Your task to perform on an android device: open wifi settings Image 0: 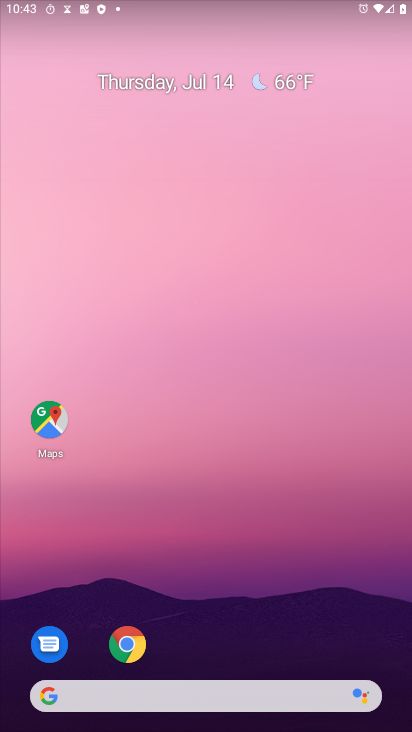
Step 0: drag from (229, 702) to (159, 141)
Your task to perform on an android device: open wifi settings Image 1: 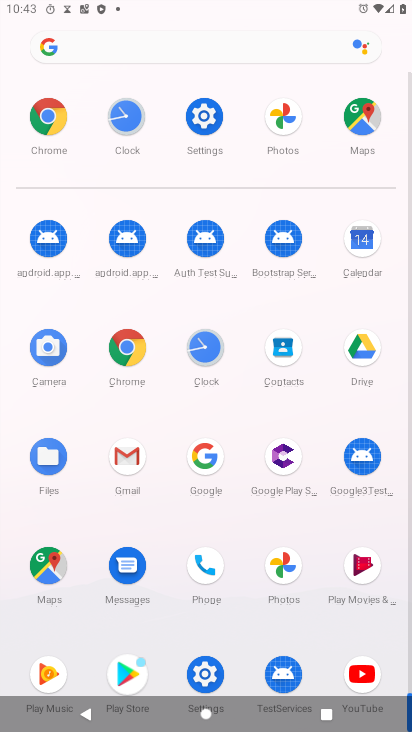
Step 1: click (198, 124)
Your task to perform on an android device: open wifi settings Image 2: 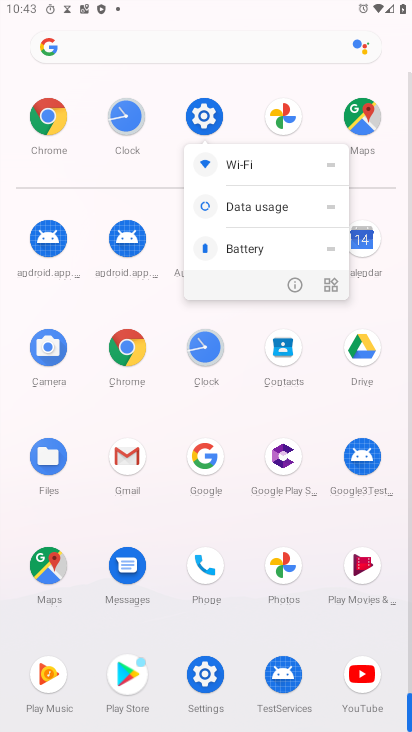
Step 2: click (198, 124)
Your task to perform on an android device: open wifi settings Image 3: 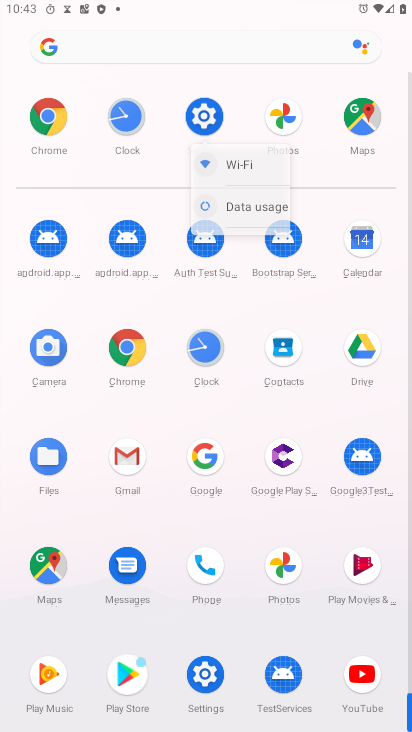
Step 3: click (198, 124)
Your task to perform on an android device: open wifi settings Image 4: 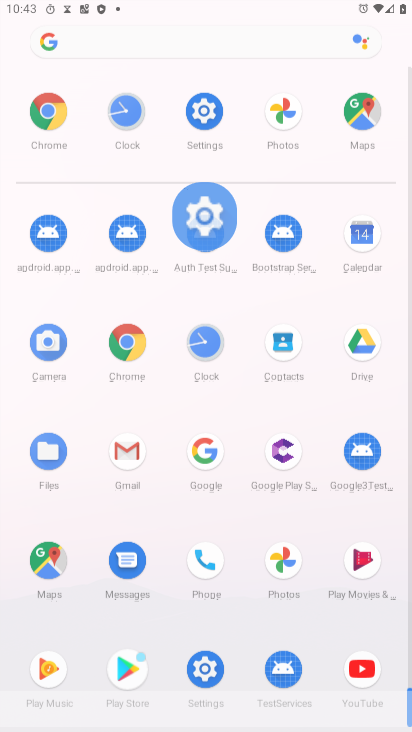
Step 4: click (198, 126)
Your task to perform on an android device: open wifi settings Image 5: 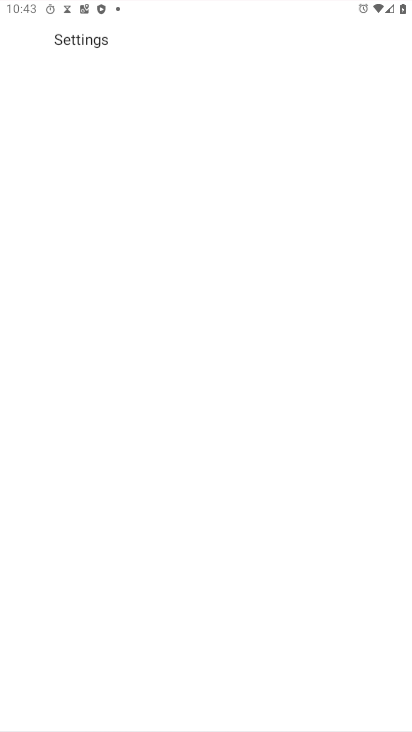
Step 5: click (198, 126)
Your task to perform on an android device: open wifi settings Image 6: 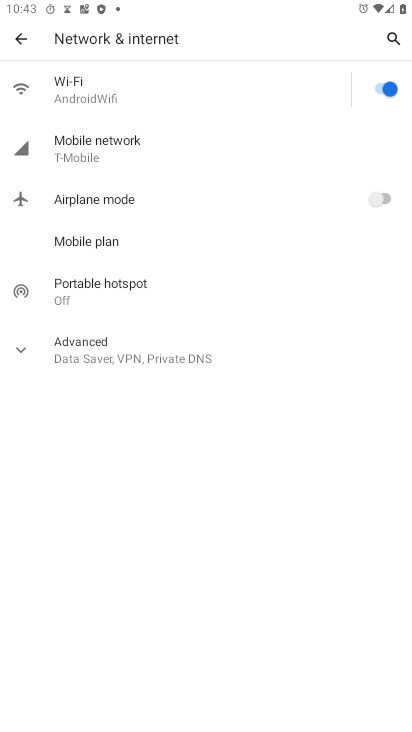
Step 6: click (85, 88)
Your task to perform on an android device: open wifi settings Image 7: 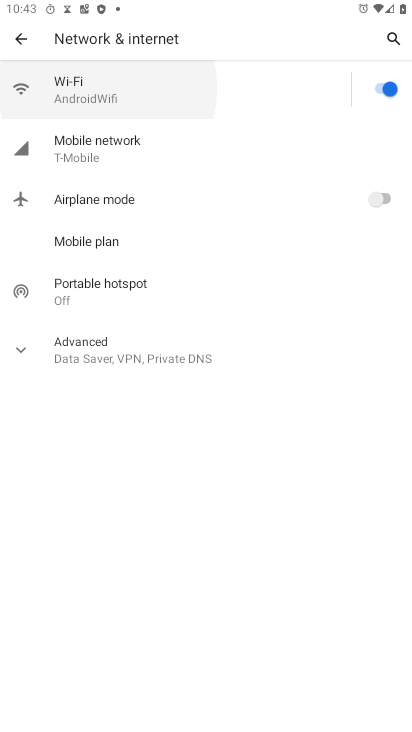
Step 7: click (86, 87)
Your task to perform on an android device: open wifi settings Image 8: 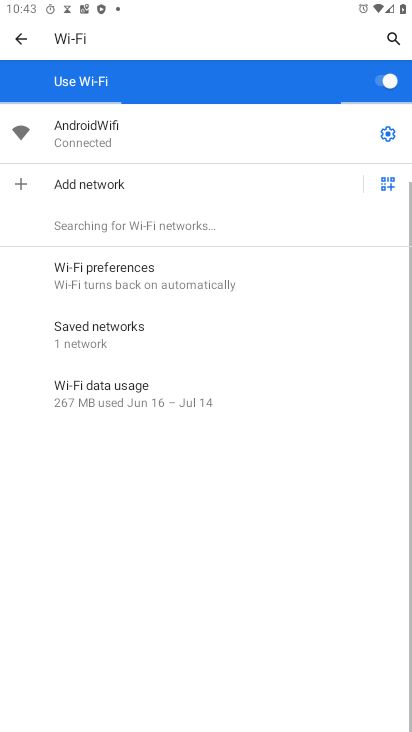
Step 8: task complete